Your task to perform on an android device: toggle show notifications on the lock screen Image 0: 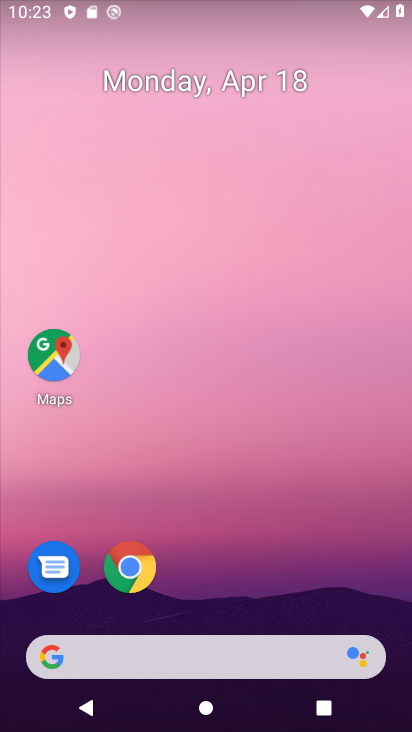
Step 0: drag from (207, 485) to (251, 92)
Your task to perform on an android device: toggle show notifications on the lock screen Image 1: 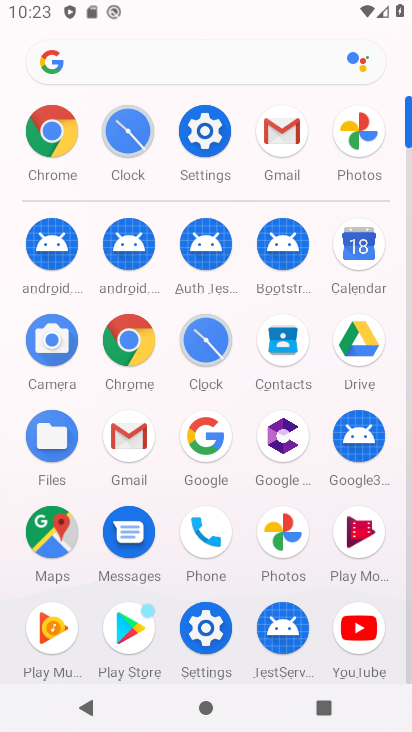
Step 1: click (186, 140)
Your task to perform on an android device: toggle show notifications on the lock screen Image 2: 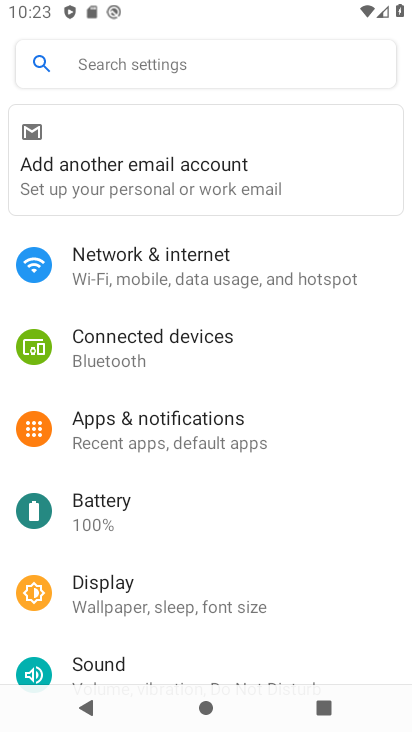
Step 2: click (214, 424)
Your task to perform on an android device: toggle show notifications on the lock screen Image 3: 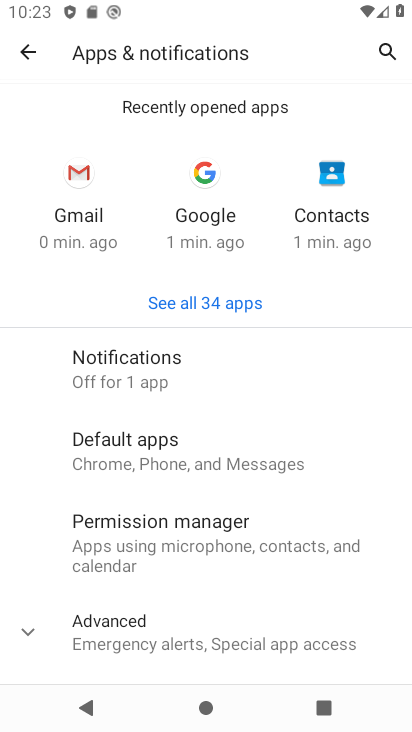
Step 3: click (154, 371)
Your task to perform on an android device: toggle show notifications on the lock screen Image 4: 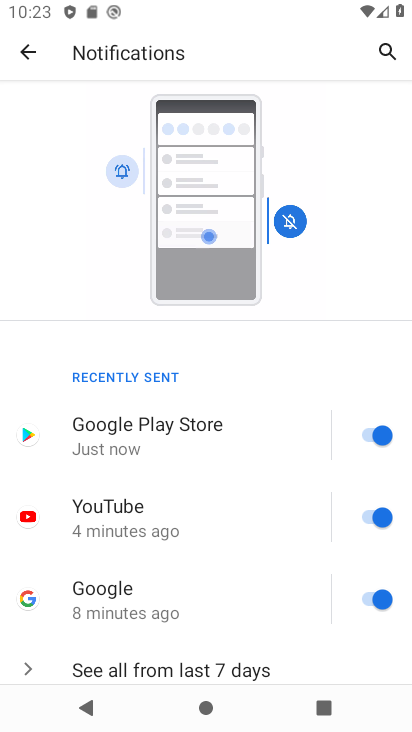
Step 4: drag from (187, 625) to (222, 244)
Your task to perform on an android device: toggle show notifications on the lock screen Image 5: 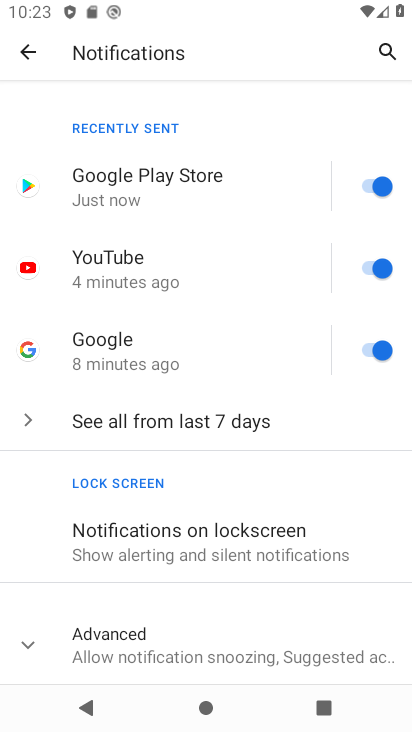
Step 5: click (208, 522)
Your task to perform on an android device: toggle show notifications on the lock screen Image 6: 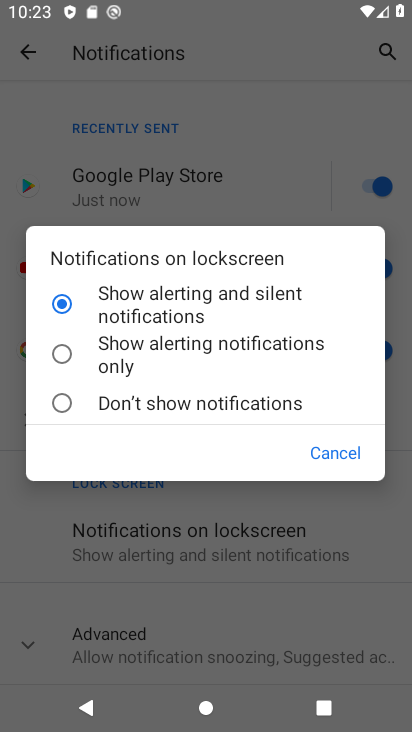
Step 6: click (140, 340)
Your task to perform on an android device: toggle show notifications on the lock screen Image 7: 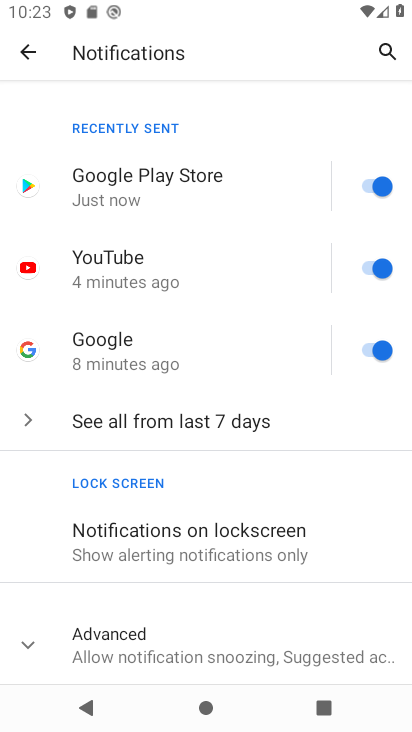
Step 7: task complete